Your task to perform on an android device: turn on sleep mode Image 0: 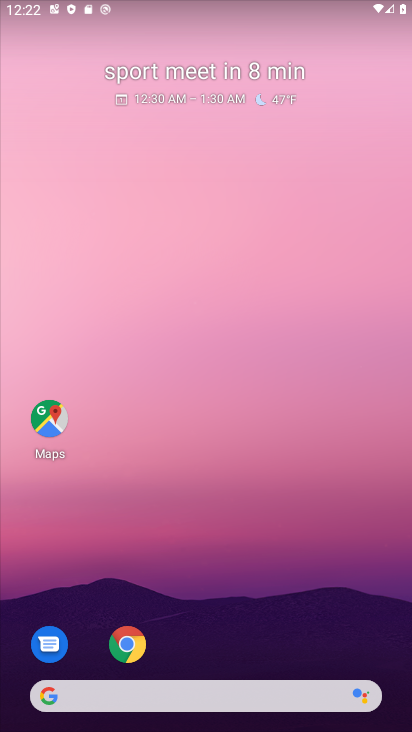
Step 0: drag from (5, 684) to (261, 92)
Your task to perform on an android device: turn on sleep mode Image 1: 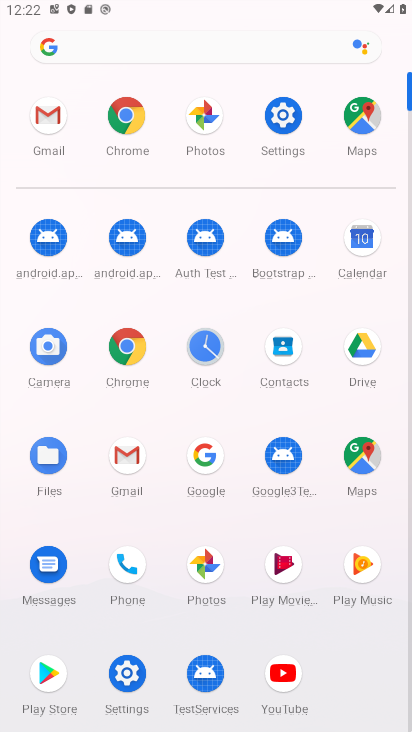
Step 1: click (288, 137)
Your task to perform on an android device: turn on sleep mode Image 2: 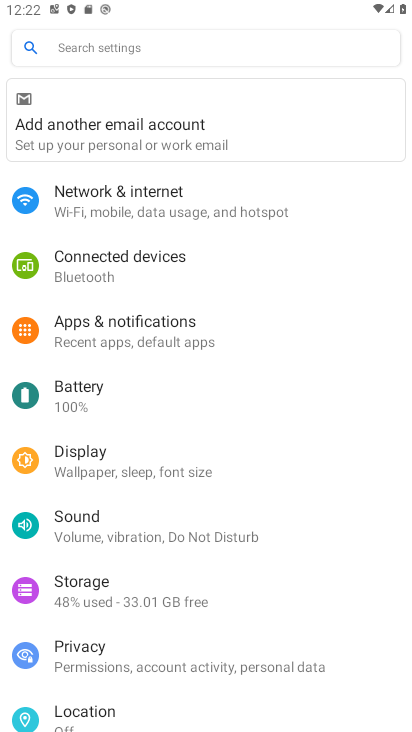
Step 2: drag from (182, 666) to (197, 261)
Your task to perform on an android device: turn on sleep mode Image 3: 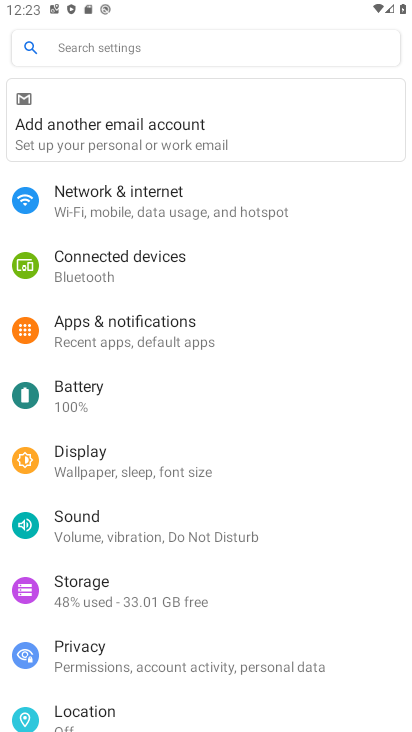
Step 3: drag from (110, 560) to (150, 75)
Your task to perform on an android device: turn on sleep mode Image 4: 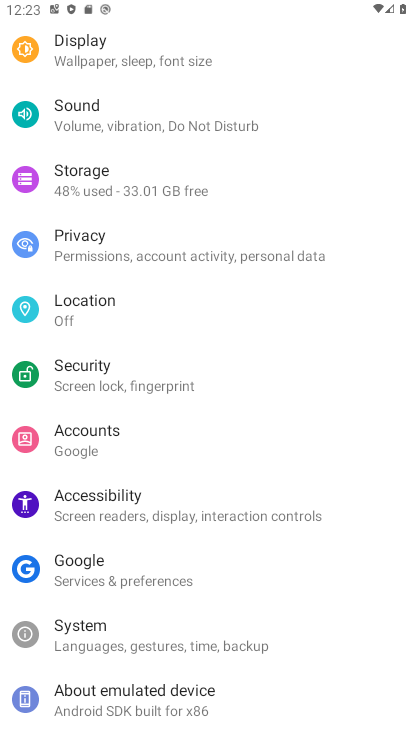
Step 4: click (184, 77)
Your task to perform on an android device: turn on sleep mode Image 5: 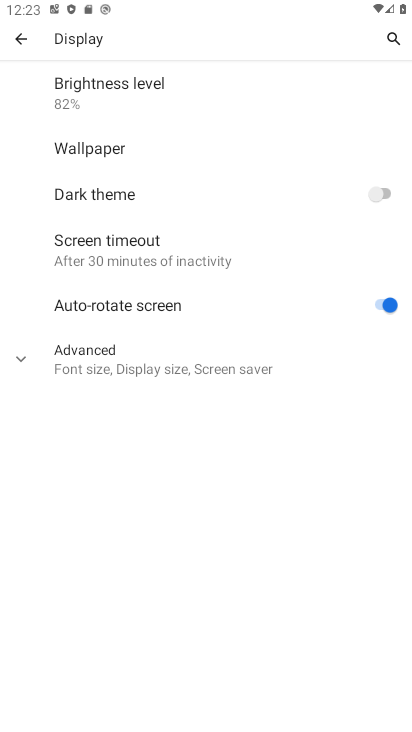
Step 5: task complete